Your task to perform on an android device: turn on the 12-hour format for clock Image 0: 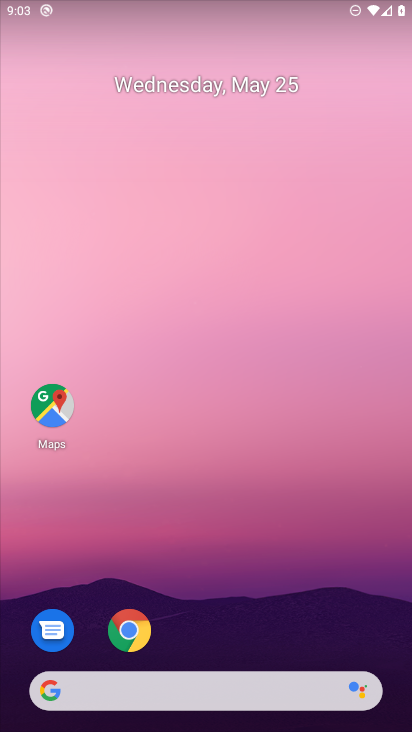
Step 0: drag from (191, 636) to (191, 366)
Your task to perform on an android device: turn on the 12-hour format for clock Image 1: 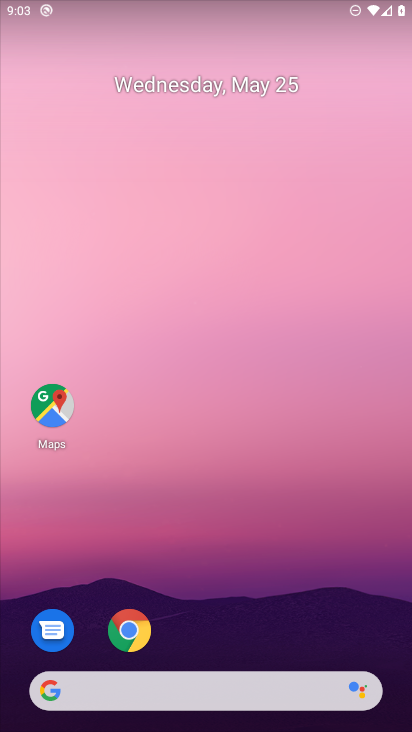
Step 1: drag from (244, 670) to (255, 373)
Your task to perform on an android device: turn on the 12-hour format for clock Image 2: 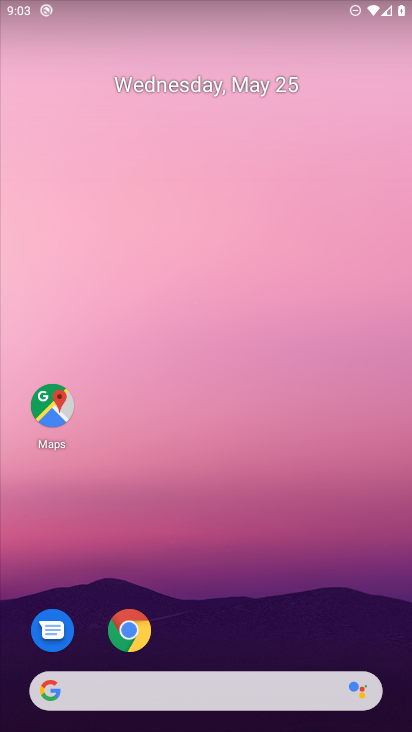
Step 2: drag from (200, 675) to (227, 123)
Your task to perform on an android device: turn on the 12-hour format for clock Image 3: 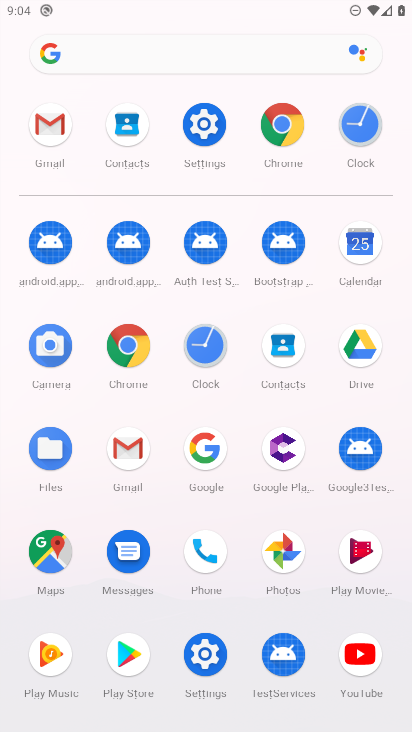
Step 3: click (217, 348)
Your task to perform on an android device: turn on the 12-hour format for clock Image 4: 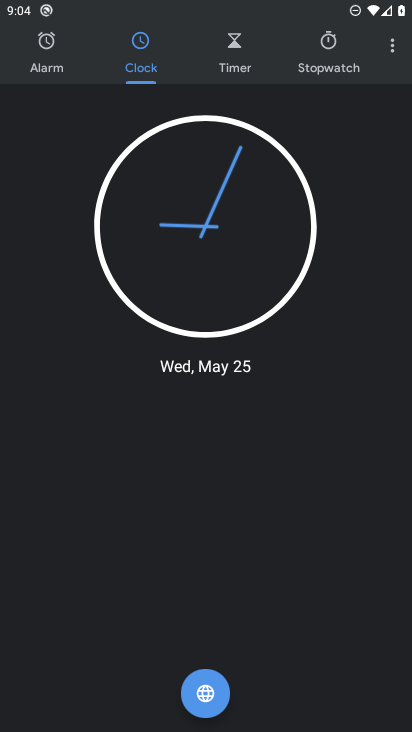
Step 4: click (390, 53)
Your task to perform on an android device: turn on the 12-hour format for clock Image 5: 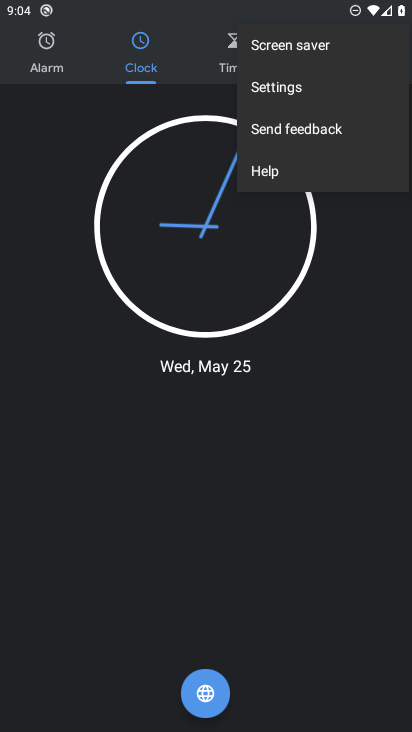
Step 5: click (285, 84)
Your task to perform on an android device: turn on the 12-hour format for clock Image 6: 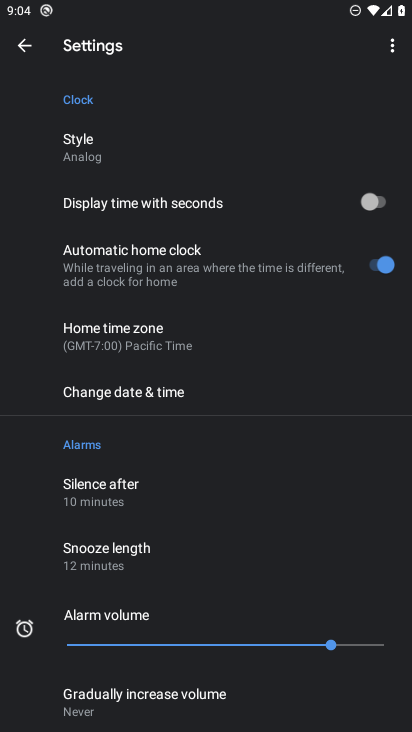
Step 6: drag from (176, 616) to (277, 237)
Your task to perform on an android device: turn on the 12-hour format for clock Image 7: 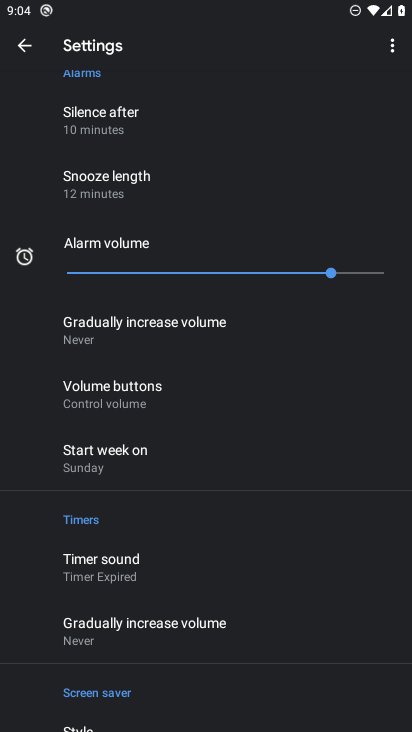
Step 7: drag from (156, 587) to (218, 303)
Your task to perform on an android device: turn on the 12-hour format for clock Image 8: 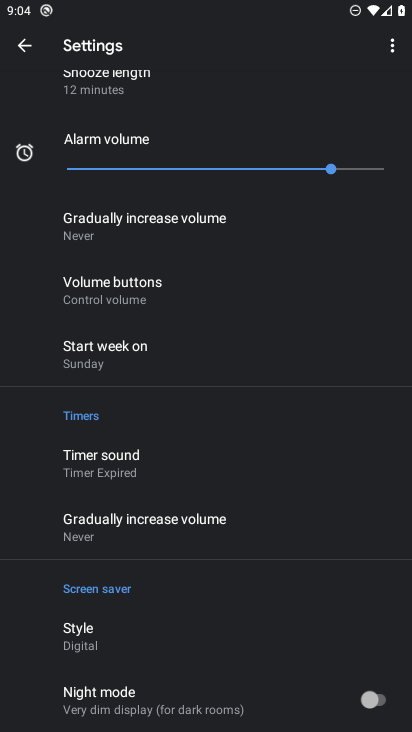
Step 8: drag from (213, 60) to (232, 499)
Your task to perform on an android device: turn on the 12-hour format for clock Image 9: 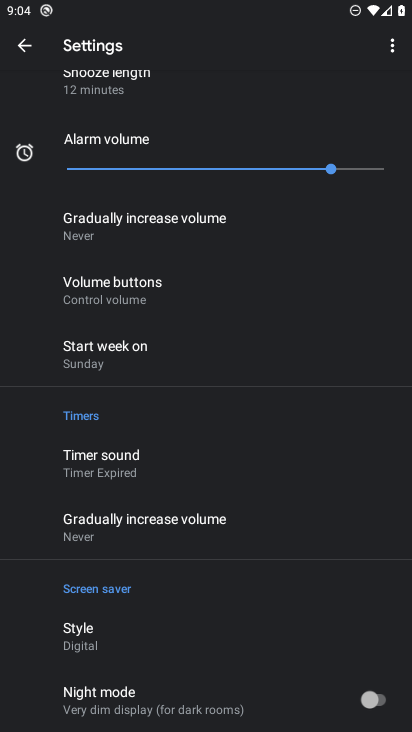
Step 9: drag from (154, 100) to (251, 416)
Your task to perform on an android device: turn on the 12-hour format for clock Image 10: 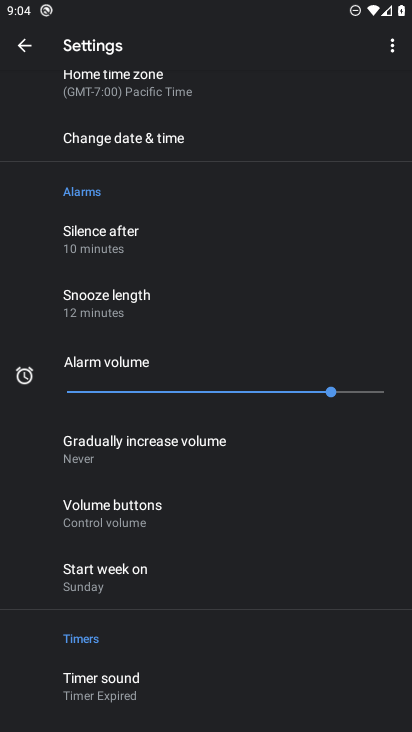
Step 10: click (140, 128)
Your task to perform on an android device: turn on the 12-hour format for clock Image 11: 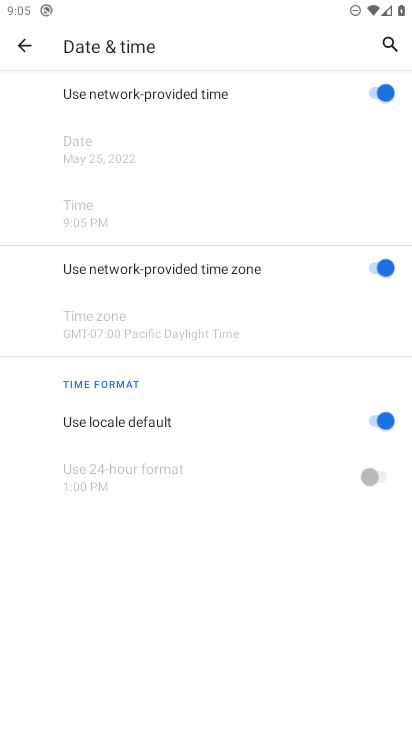
Step 11: task complete